Your task to perform on an android device: Show me recent news Image 0: 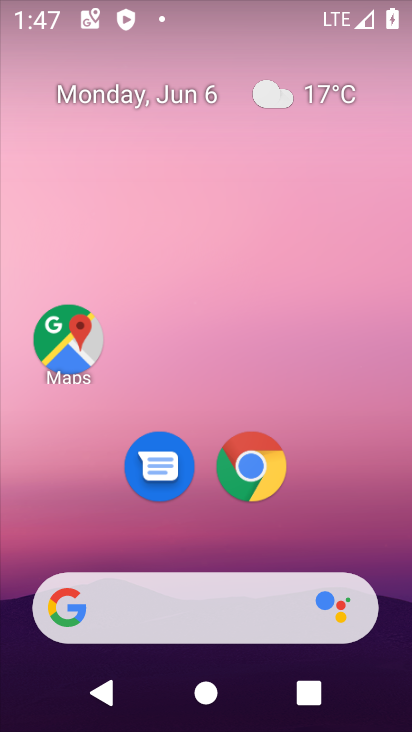
Step 0: press home button
Your task to perform on an android device: Show me recent news Image 1: 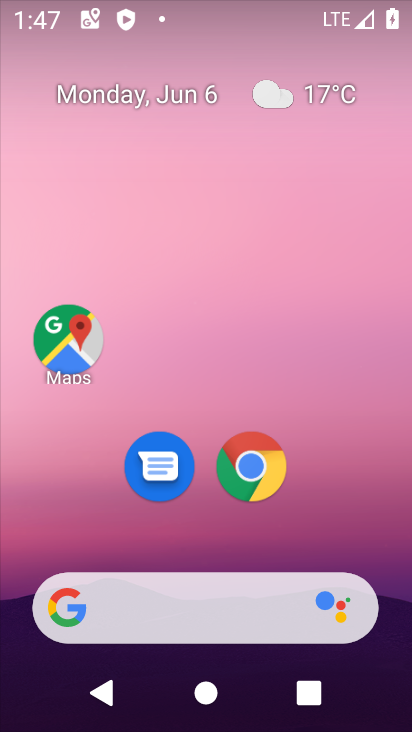
Step 1: click (66, 613)
Your task to perform on an android device: Show me recent news Image 2: 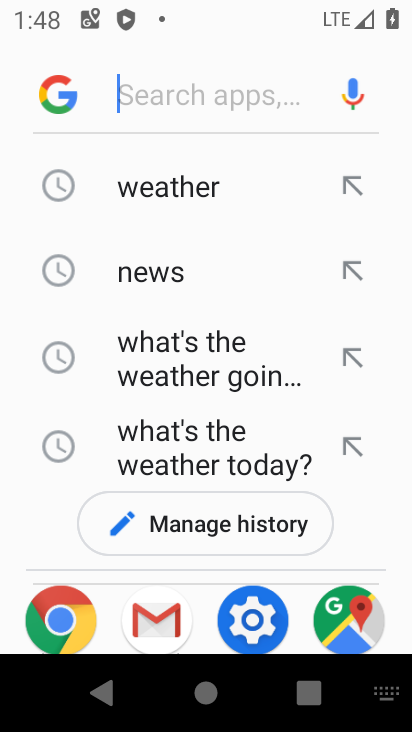
Step 2: type "recent news"
Your task to perform on an android device: Show me recent news Image 3: 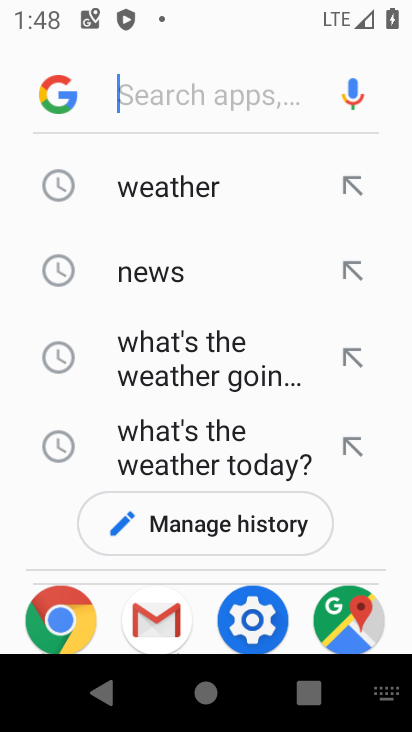
Step 3: click (192, 89)
Your task to perform on an android device: Show me recent news Image 4: 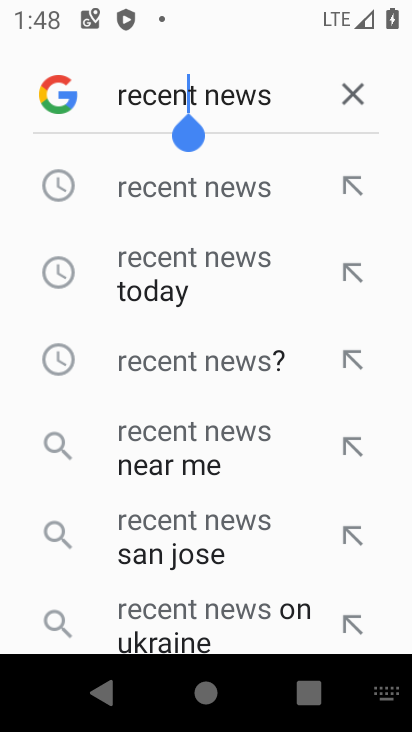
Step 4: click (194, 195)
Your task to perform on an android device: Show me recent news Image 5: 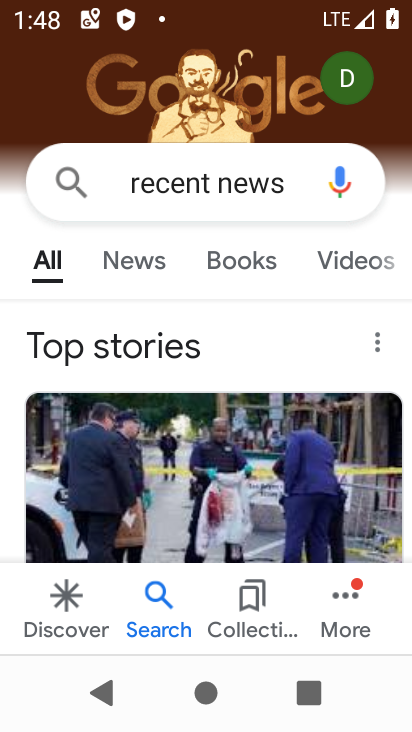
Step 5: task complete